Your task to perform on an android device: Open Wikipedia Image 0: 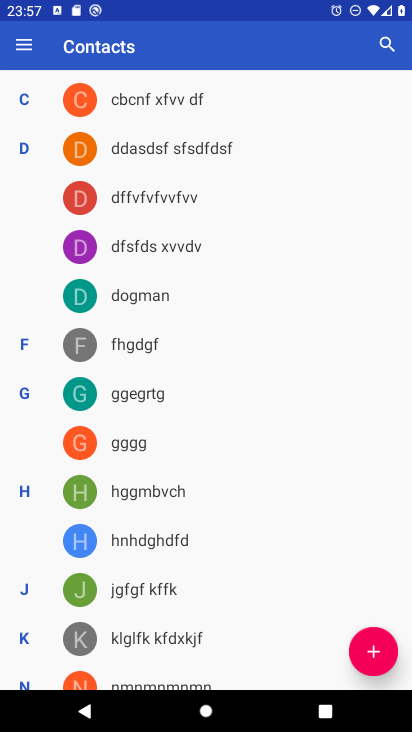
Step 0: press home button
Your task to perform on an android device: Open Wikipedia Image 1: 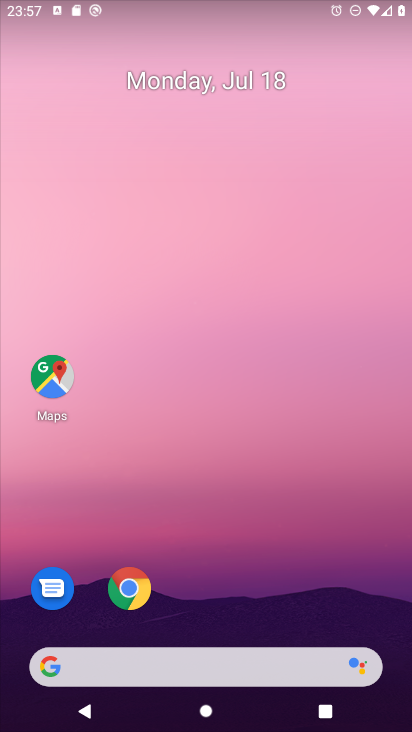
Step 1: click (130, 588)
Your task to perform on an android device: Open Wikipedia Image 2: 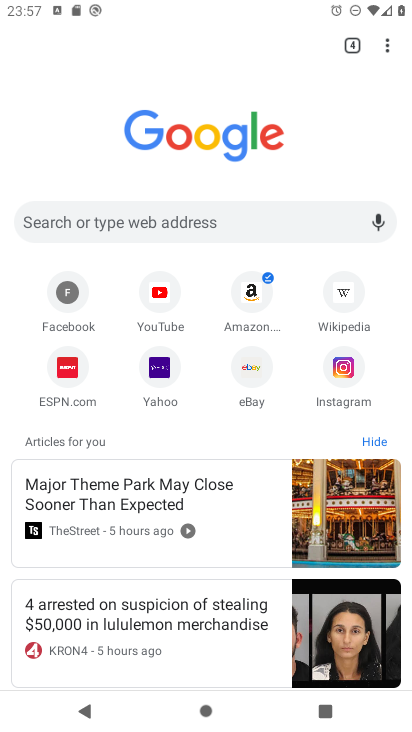
Step 2: click (110, 212)
Your task to perform on an android device: Open Wikipedia Image 3: 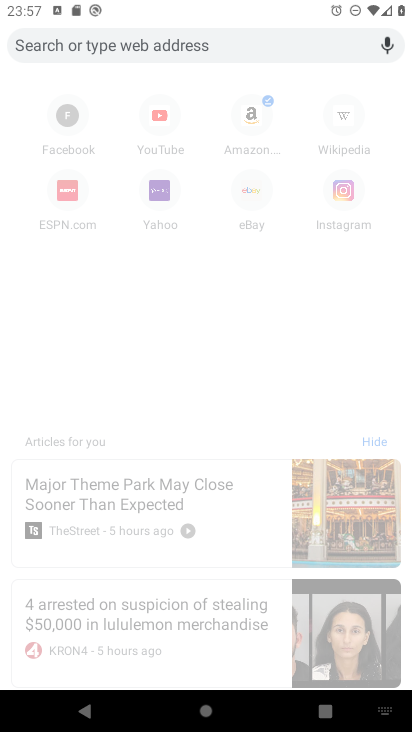
Step 3: type "wikipedia"
Your task to perform on an android device: Open Wikipedia Image 4: 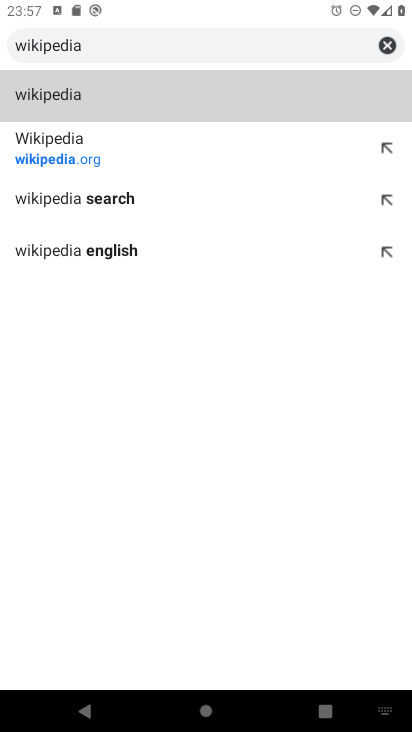
Step 4: click (69, 102)
Your task to perform on an android device: Open Wikipedia Image 5: 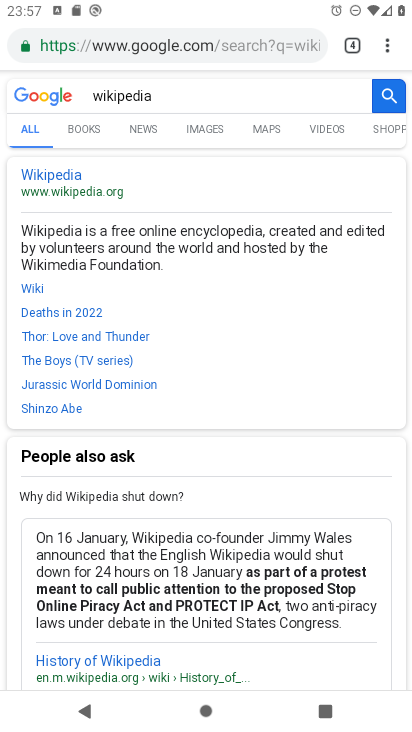
Step 5: click (69, 184)
Your task to perform on an android device: Open Wikipedia Image 6: 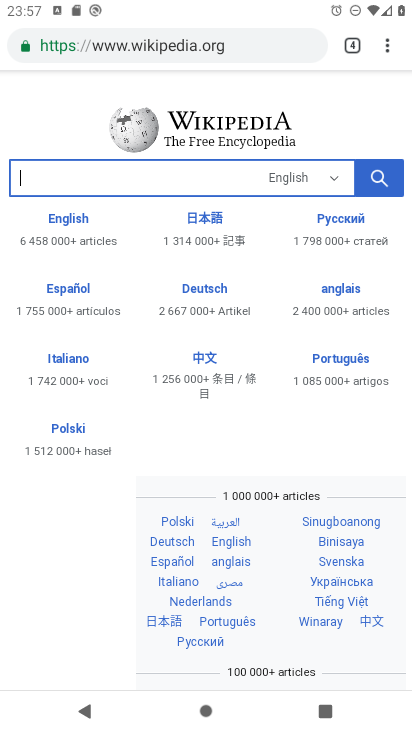
Step 6: task complete